Your task to perform on an android device: Open calendar and show me the fourth week of next month Image 0: 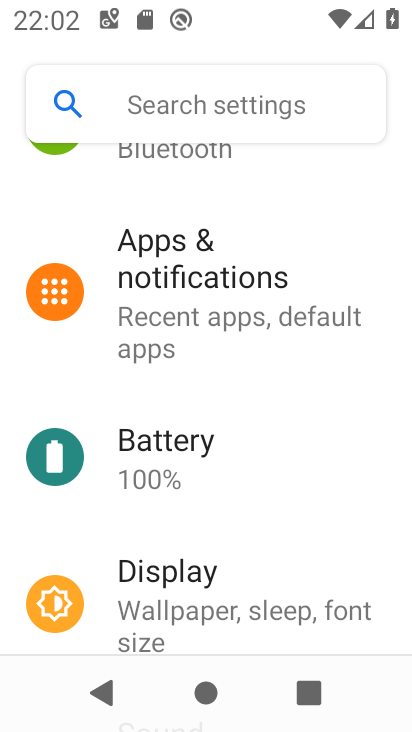
Step 0: press home button
Your task to perform on an android device: Open calendar and show me the fourth week of next month Image 1: 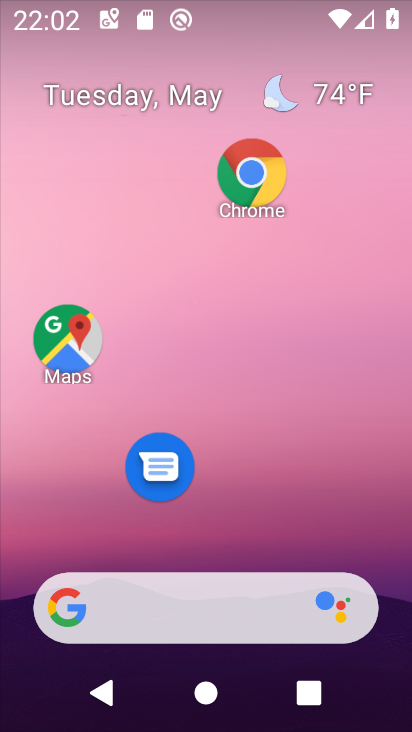
Step 1: drag from (375, 524) to (335, 95)
Your task to perform on an android device: Open calendar and show me the fourth week of next month Image 2: 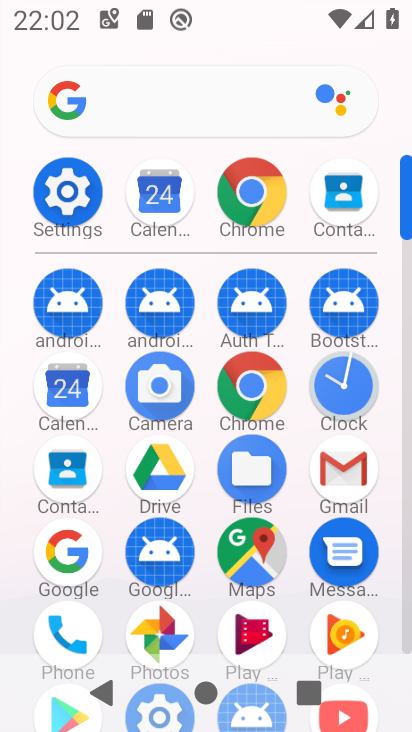
Step 2: click (73, 392)
Your task to perform on an android device: Open calendar and show me the fourth week of next month Image 3: 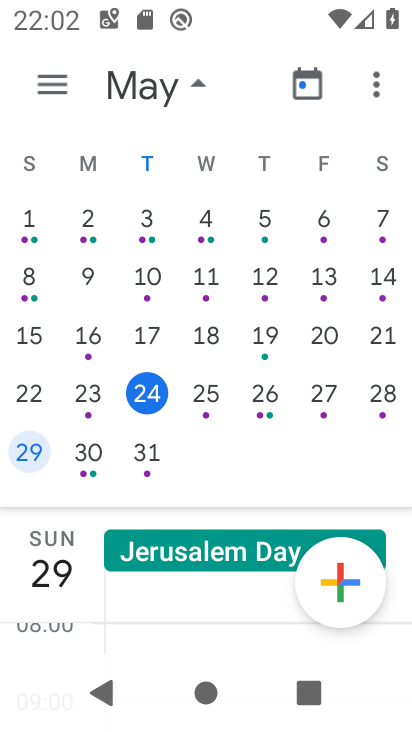
Step 3: drag from (322, 361) to (3, 385)
Your task to perform on an android device: Open calendar and show me the fourth week of next month Image 4: 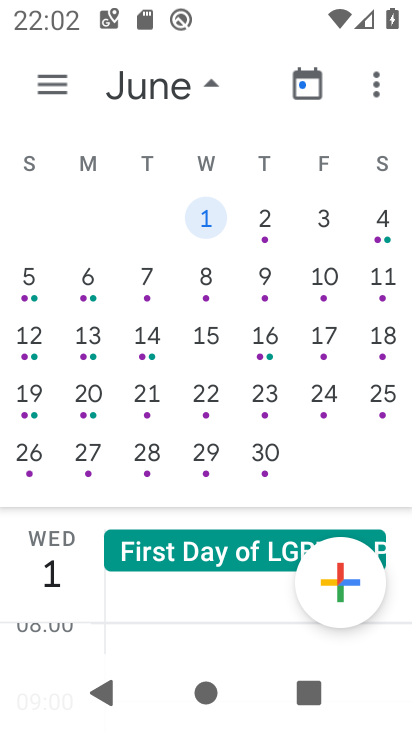
Step 4: click (40, 398)
Your task to perform on an android device: Open calendar and show me the fourth week of next month Image 5: 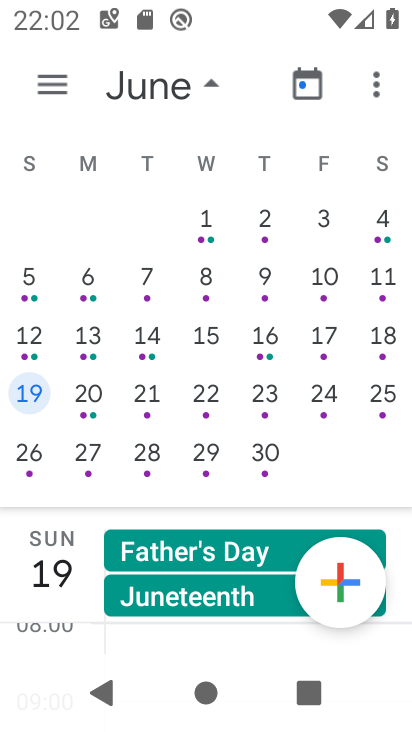
Step 5: task complete